Your task to perform on an android device: Search for Mexican restaurants on Maps Image 0: 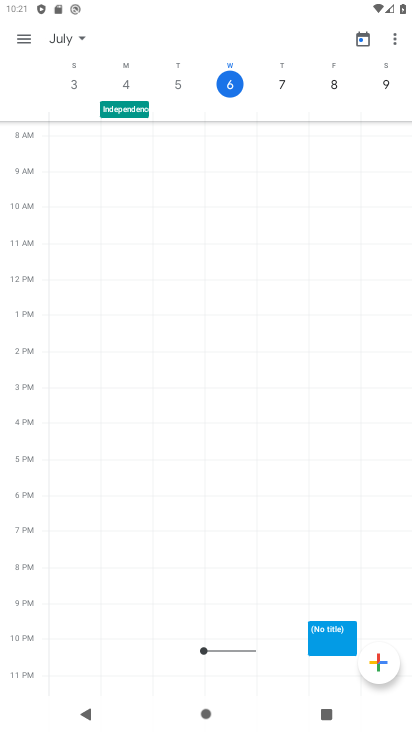
Step 0: press home button
Your task to perform on an android device: Search for Mexican restaurants on Maps Image 1: 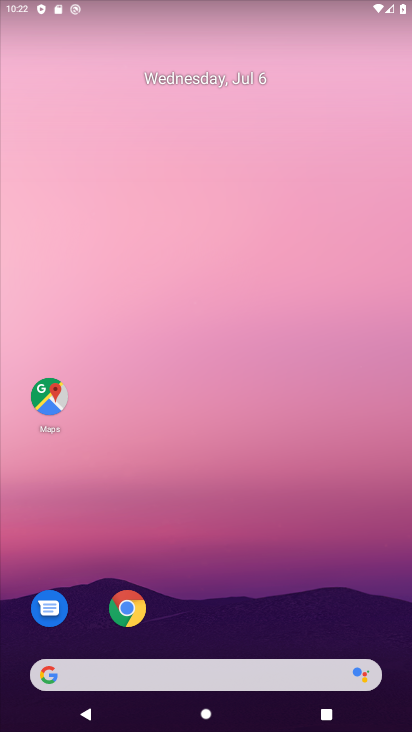
Step 1: drag from (244, 639) to (234, 52)
Your task to perform on an android device: Search for Mexican restaurants on Maps Image 2: 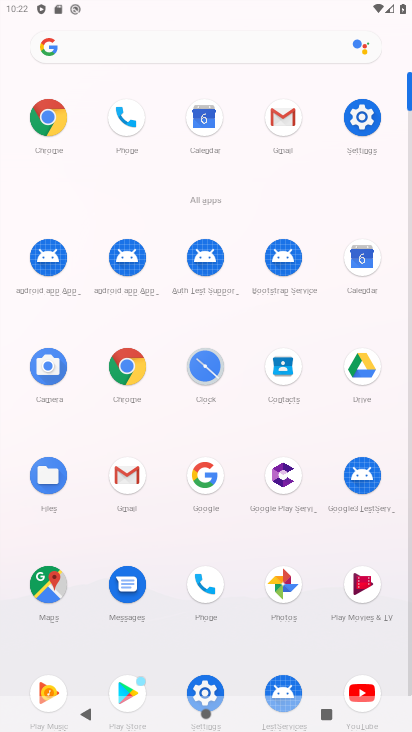
Step 2: click (52, 581)
Your task to perform on an android device: Search for Mexican restaurants on Maps Image 3: 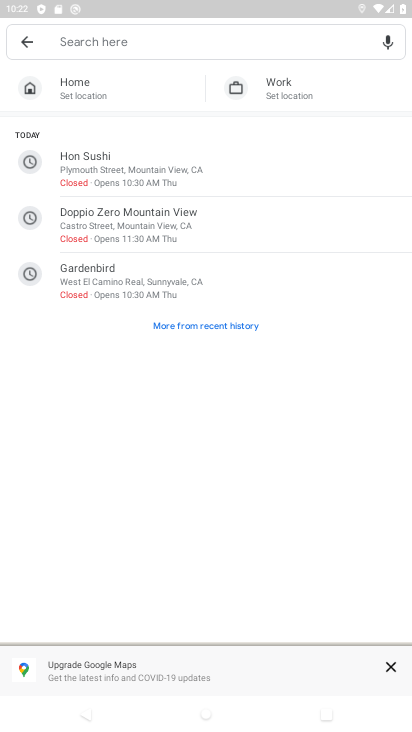
Step 3: click (154, 39)
Your task to perform on an android device: Search for Mexican restaurants on Maps Image 4: 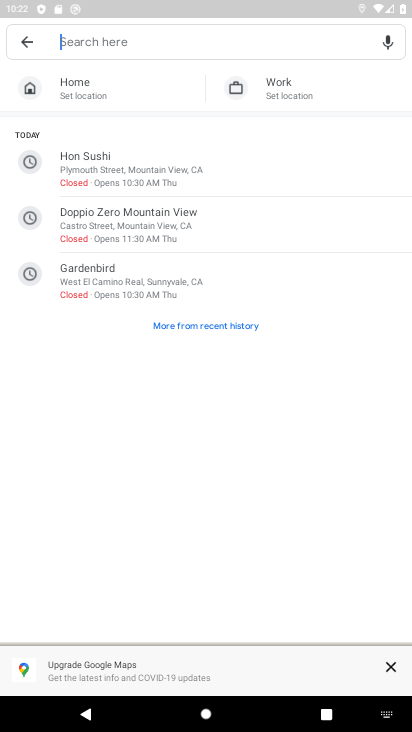
Step 4: type "mexican restuarant"
Your task to perform on an android device: Search for Mexican restaurants on Maps Image 5: 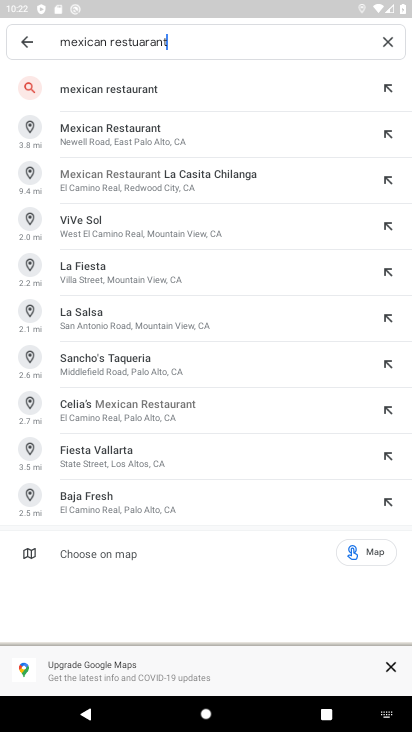
Step 5: click (173, 83)
Your task to perform on an android device: Search for Mexican restaurants on Maps Image 6: 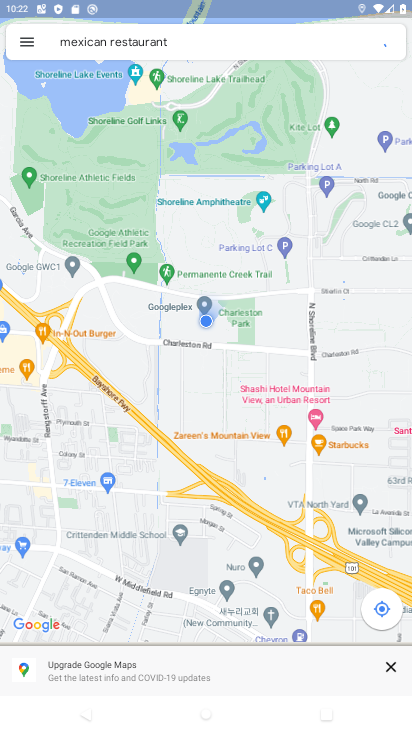
Step 6: task complete